Your task to perform on an android device: Go to location settings Image 0: 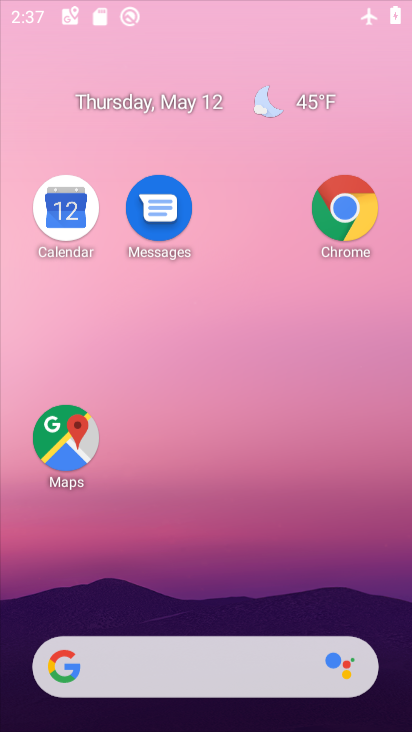
Step 0: click (256, 84)
Your task to perform on an android device: Go to location settings Image 1: 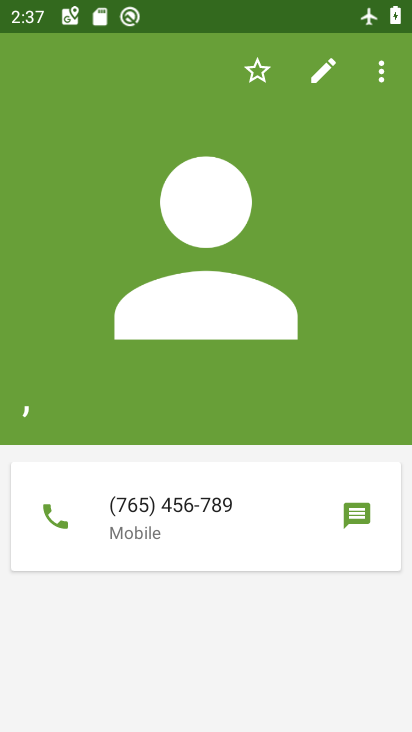
Step 1: press home button
Your task to perform on an android device: Go to location settings Image 2: 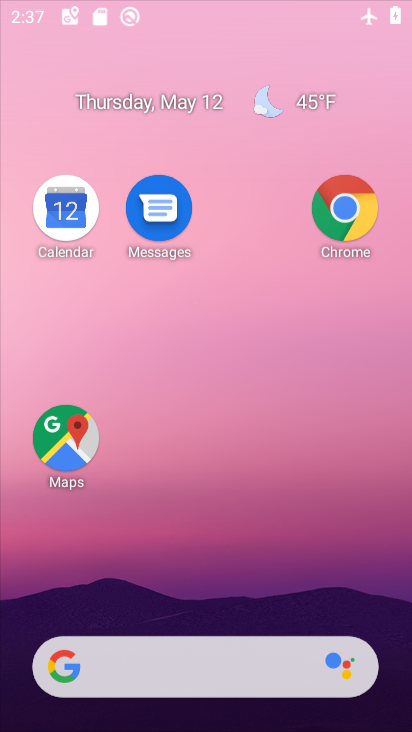
Step 2: drag from (128, 658) to (188, 86)
Your task to perform on an android device: Go to location settings Image 3: 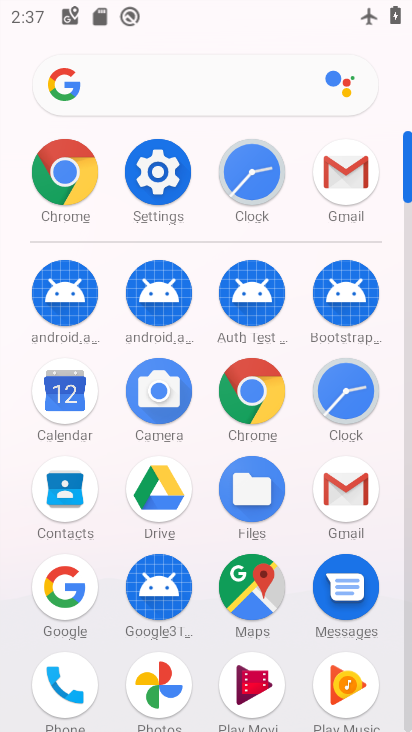
Step 3: click (160, 165)
Your task to perform on an android device: Go to location settings Image 4: 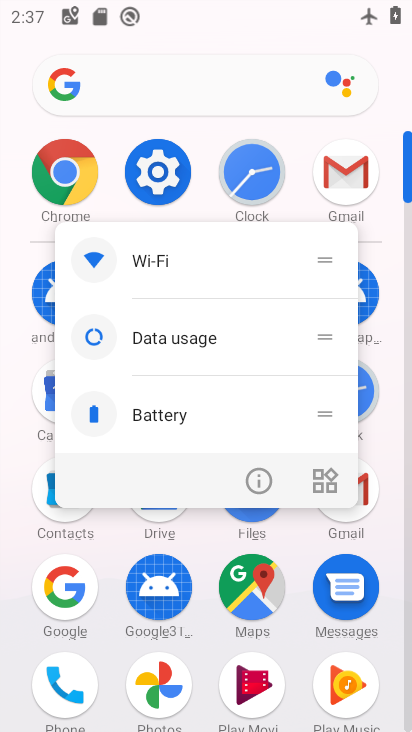
Step 4: click (251, 491)
Your task to perform on an android device: Go to location settings Image 5: 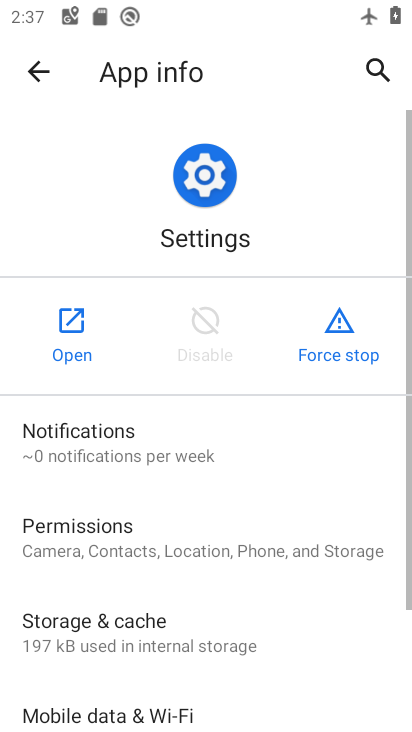
Step 5: click (54, 339)
Your task to perform on an android device: Go to location settings Image 6: 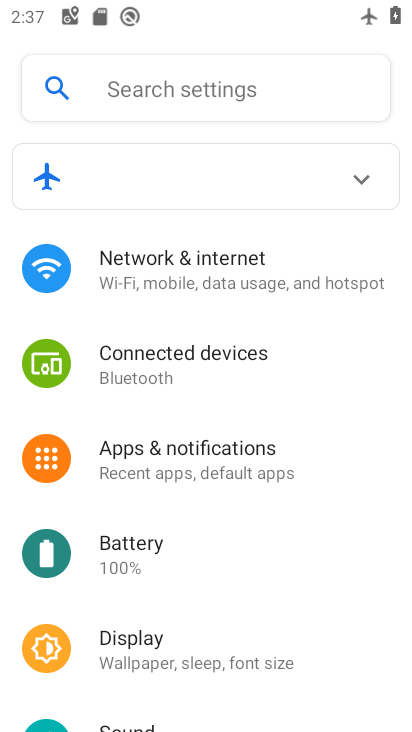
Step 6: drag from (240, 633) to (271, 14)
Your task to perform on an android device: Go to location settings Image 7: 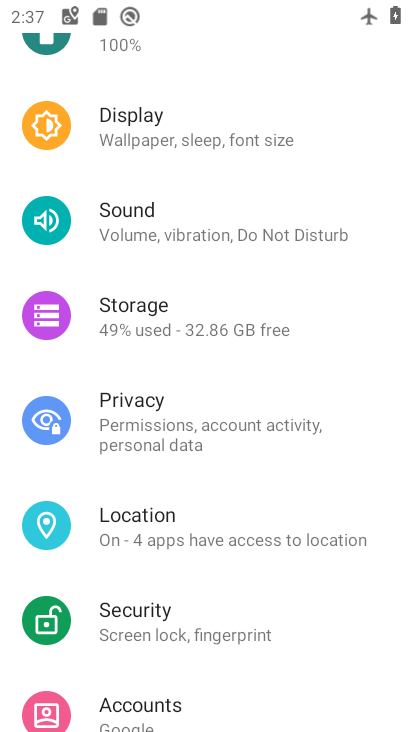
Step 7: click (173, 518)
Your task to perform on an android device: Go to location settings Image 8: 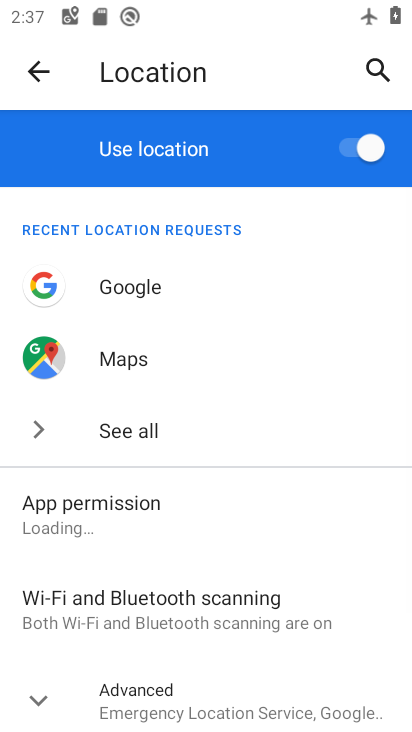
Step 8: drag from (254, 588) to (234, 206)
Your task to perform on an android device: Go to location settings Image 9: 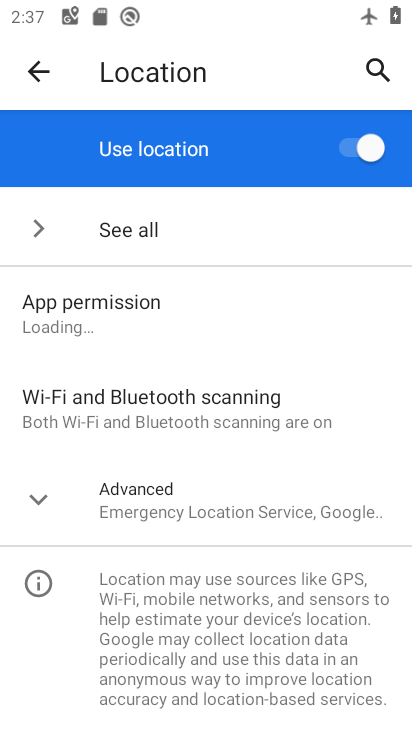
Step 9: click (132, 524)
Your task to perform on an android device: Go to location settings Image 10: 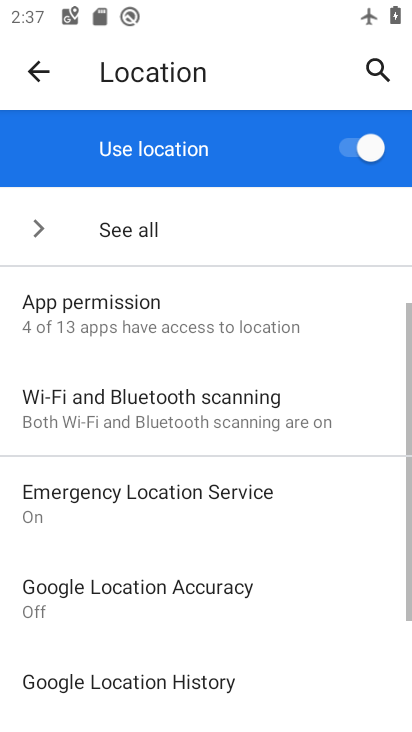
Step 10: task complete